Your task to perform on an android device: Go to accessibility settings Image 0: 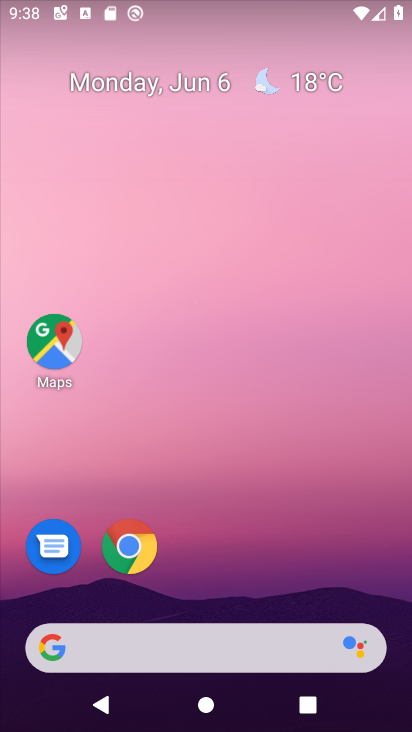
Step 0: drag from (403, 622) to (351, 86)
Your task to perform on an android device: Go to accessibility settings Image 1: 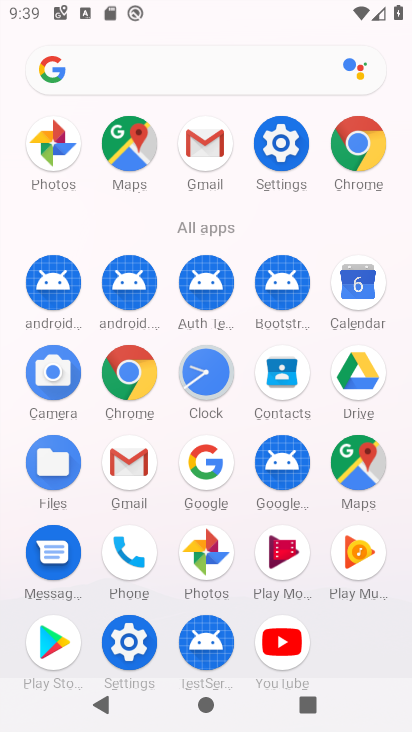
Step 1: click (131, 642)
Your task to perform on an android device: Go to accessibility settings Image 2: 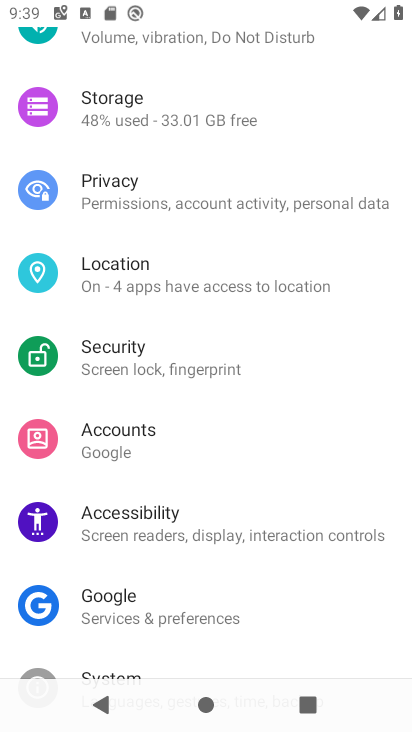
Step 2: click (128, 516)
Your task to perform on an android device: Go to accessibility settings Image 3: 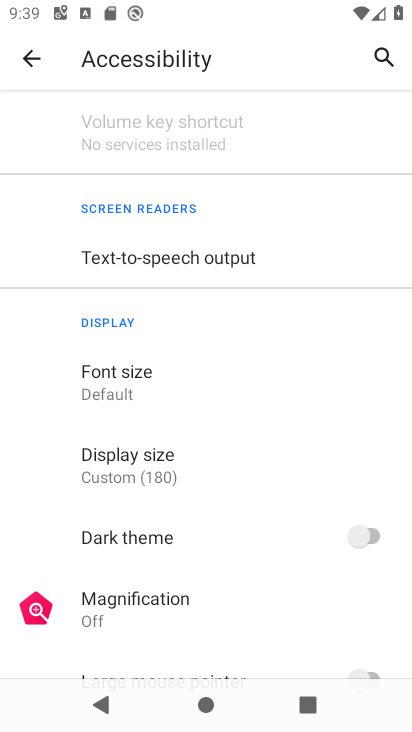
Step 3: task complete